Your task to perform on an android device: Open display settings Image 0: 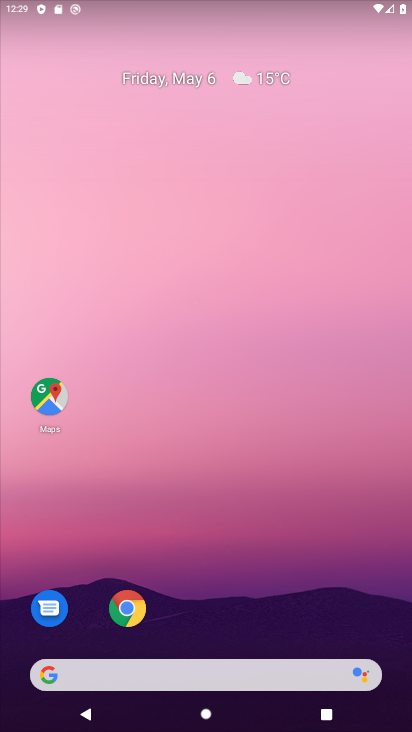
Step 0: drag from (215, 639) to (223, 242)
Your task to perform on an android device: Open display settings Image 1: 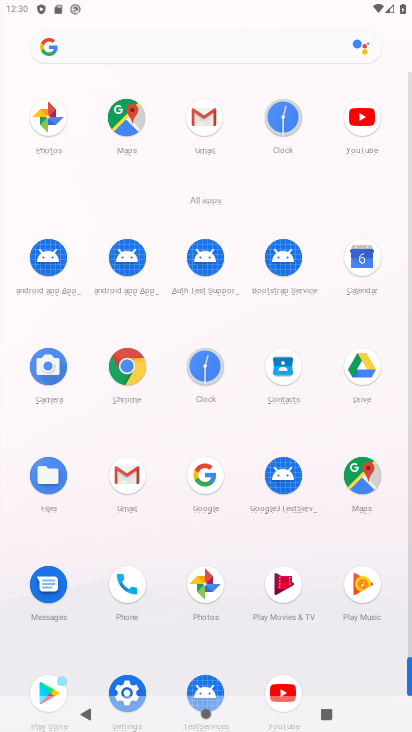
Step 1: drag from (237, 550) to (246, 154)
Your task to perform on an android device: Open display settings Image 2: 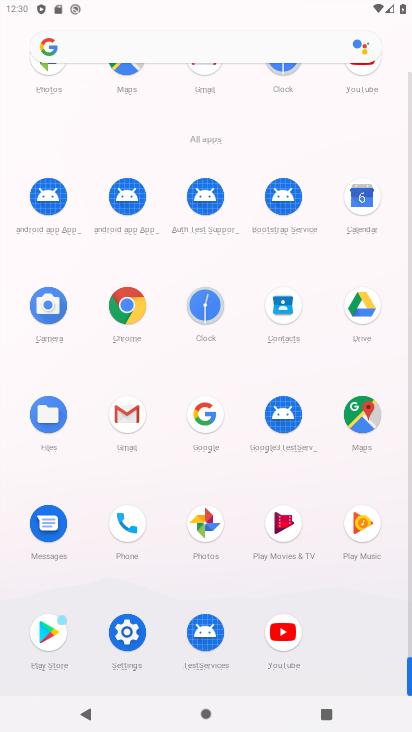
Step 2: click (127, 632)
Your task to perform on an android device: Open display settings Image 3: 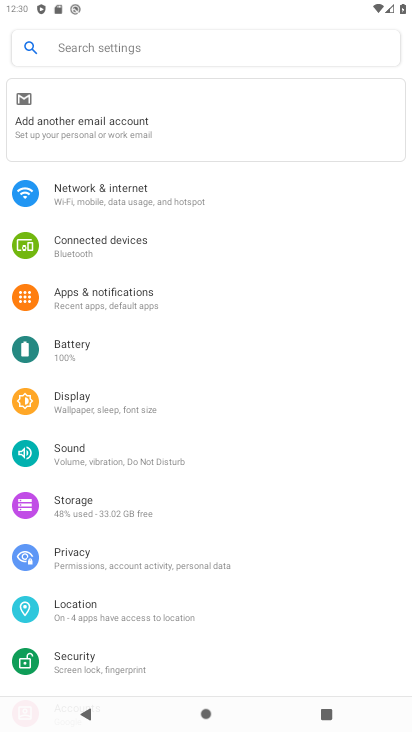
Step 3: click (96, 379)
Your task to perform on an android device: Open display settings Image 4: 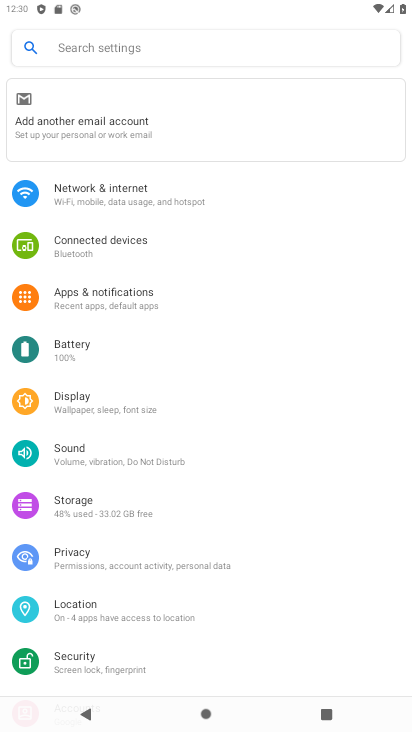
Step 4: click (96, 379)
Your task to perform on an android device: Open display settings Image 5: 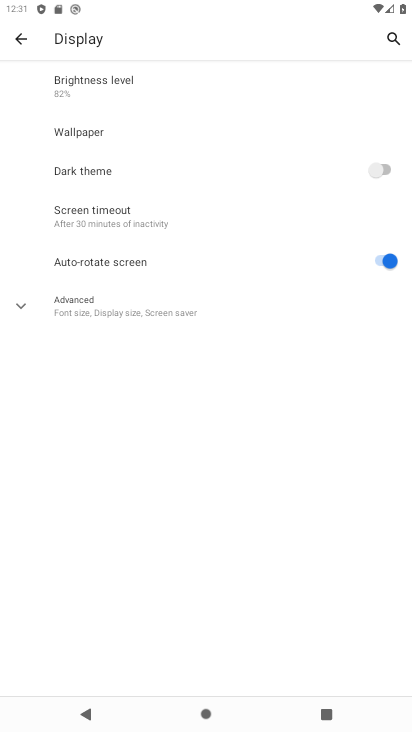
Step 5: task complete